Your task to perform on an android device: check the backup settings in the google photos Image 0: 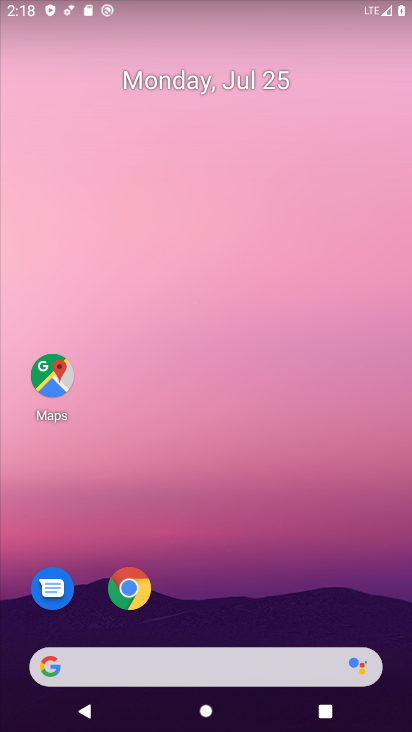
Step 0: drag from (209, 566) to (329, 31)
Your task to perform on an android device: check the backup settings in the google photos Image 1: 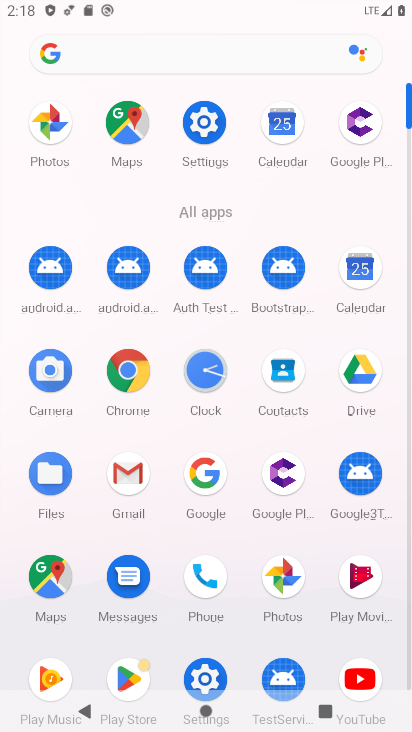
Step 1: click (286, 568)
Your task to perform on an android device: check the backup settings in the google photos Image 2: 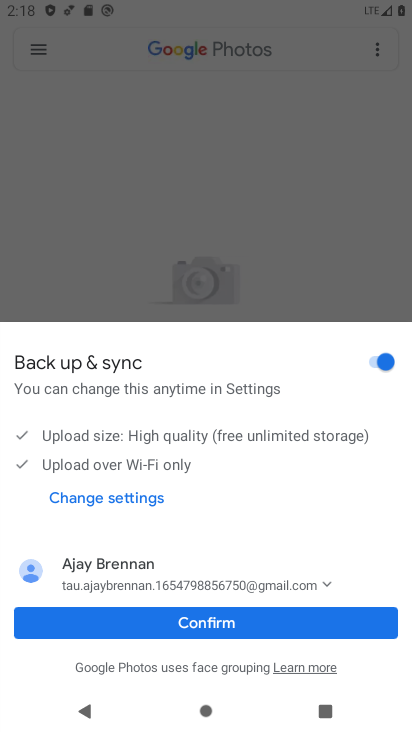
Step 2: click (247, 617)
Your task to perform on an android device: check the backup settings in the google photos Image 3: 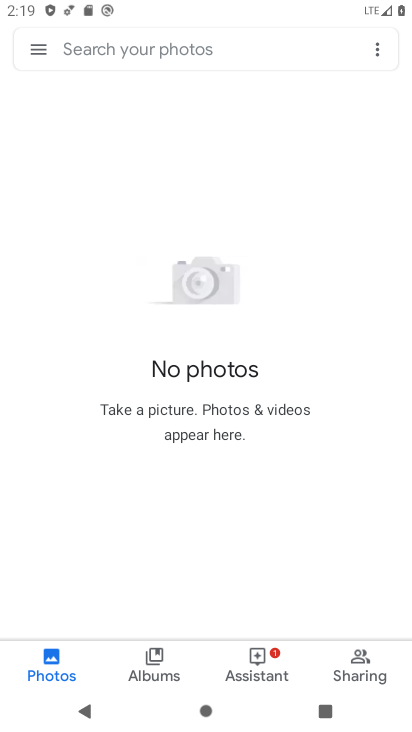
Step 3: click (37, 43)
Your task to perform on an android device: check the backup settings in the google photos Image 4: 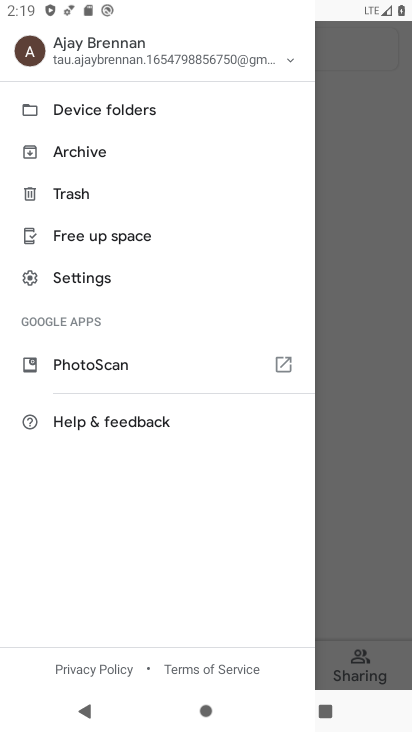
Step 4: click (34, 39)
Your task to perform on an android device: check the backup settings in the google photos Image 5: 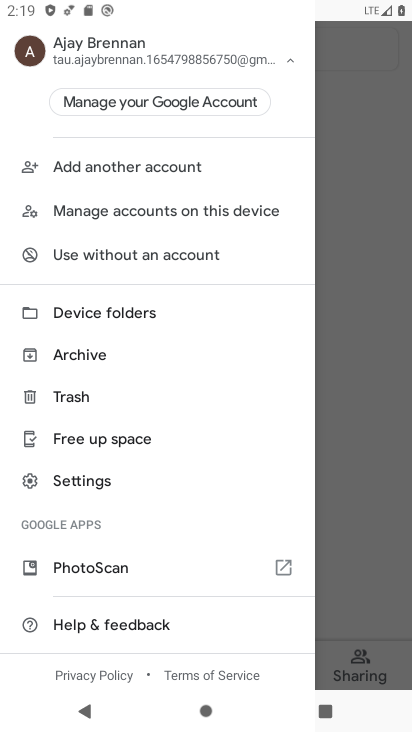
Step 5: click (79, 471)
Your task to perform on an android device: check the backup settings in the google photos Image 6: 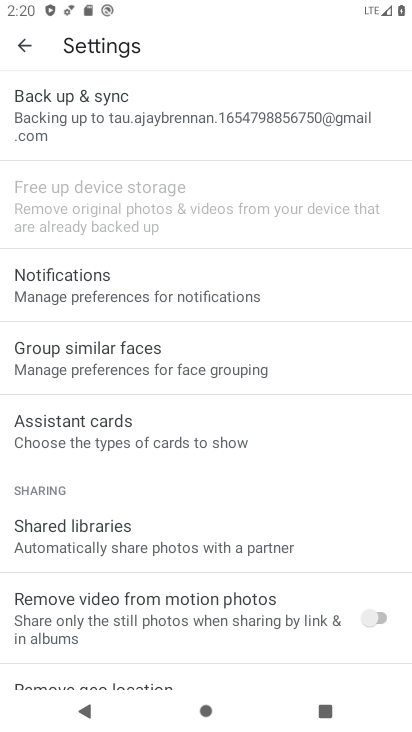
Step 6: click (142, 125)
Your task to perform on an android device: check the backup settings in the google photos Image 7: 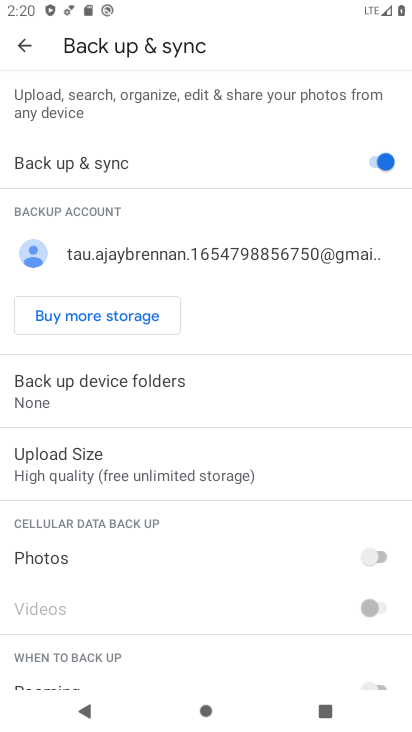
Step 7: task complete